Your task to perform on an android device: Go to CNN.com Image 0: 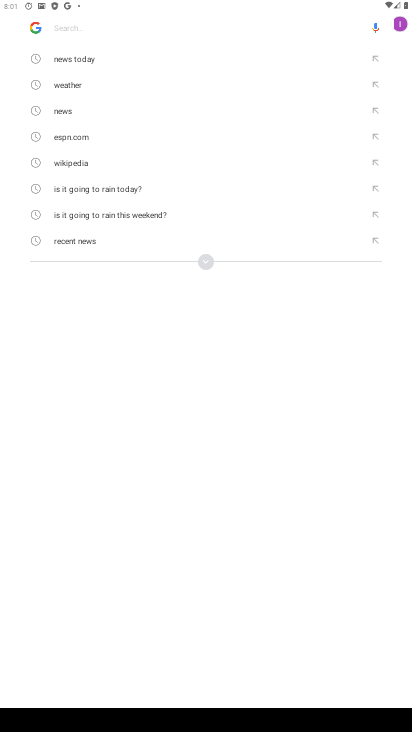
Step 0: click (78, 31)
Your task to perform on an android device: Go to CNN.com Image 1: 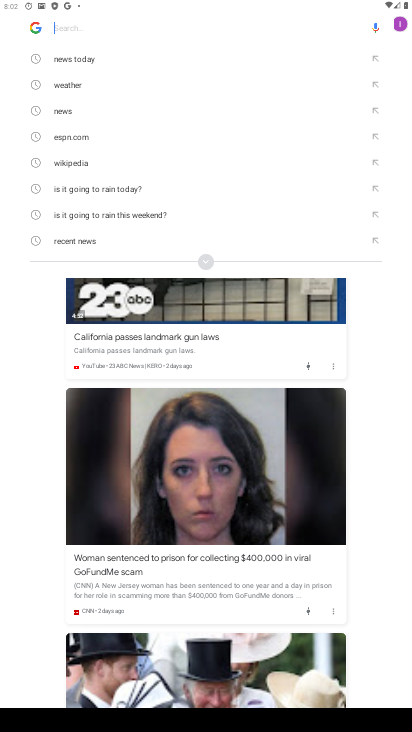
Step 1: type "CNN.com"
Your task to perform on an android device: Go to CNN.com Image 2: 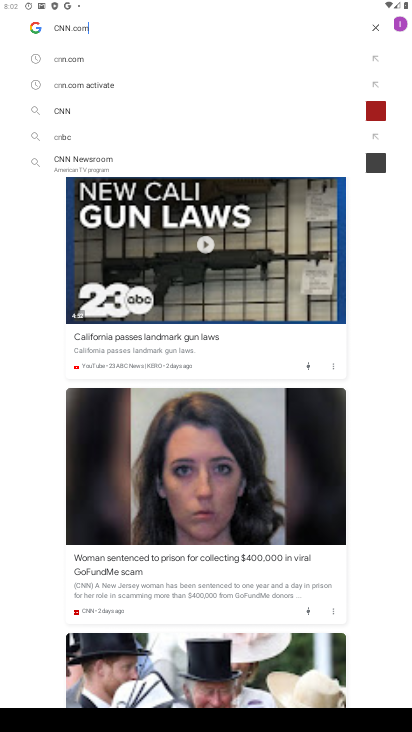
Step 2: type ""
Your task to perform on an android device: Go to CNN.com Image 3: 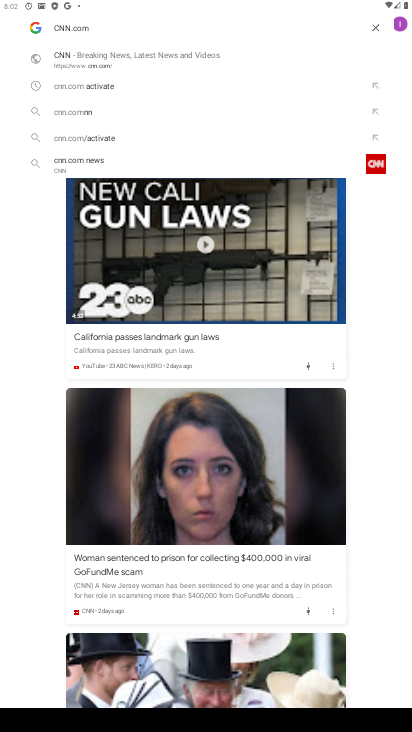
Step 3: drag from (221, 620) to (315, 272)
Your task to perform on an android device: Go to CNN.com Image 4: 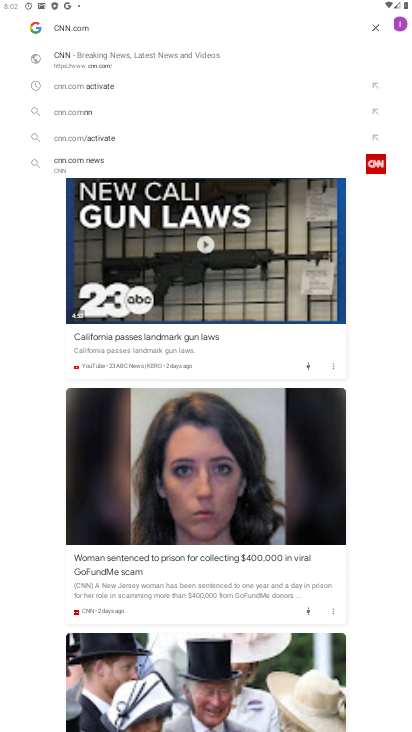
Step 4: click (94, 58)
Your task to perform on an android device: Go to CNN.com Image 5: 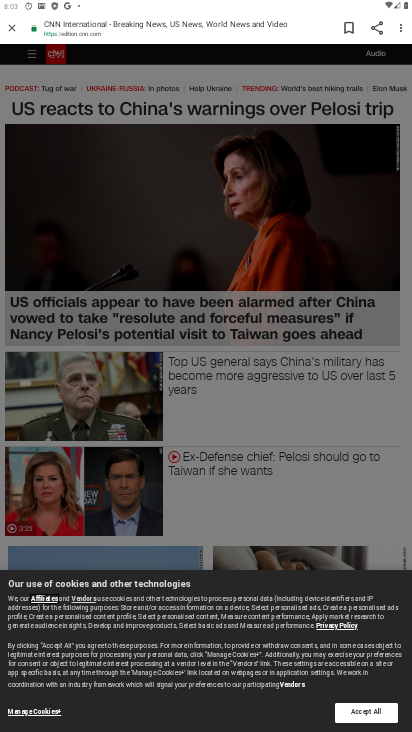
Step 5: task complete